Your task to perform on an android device: View the shopping cart on walmart.com. Search for amazon basics triple a on walmart.com, select the first entry, and add it to the cart. Image 0: 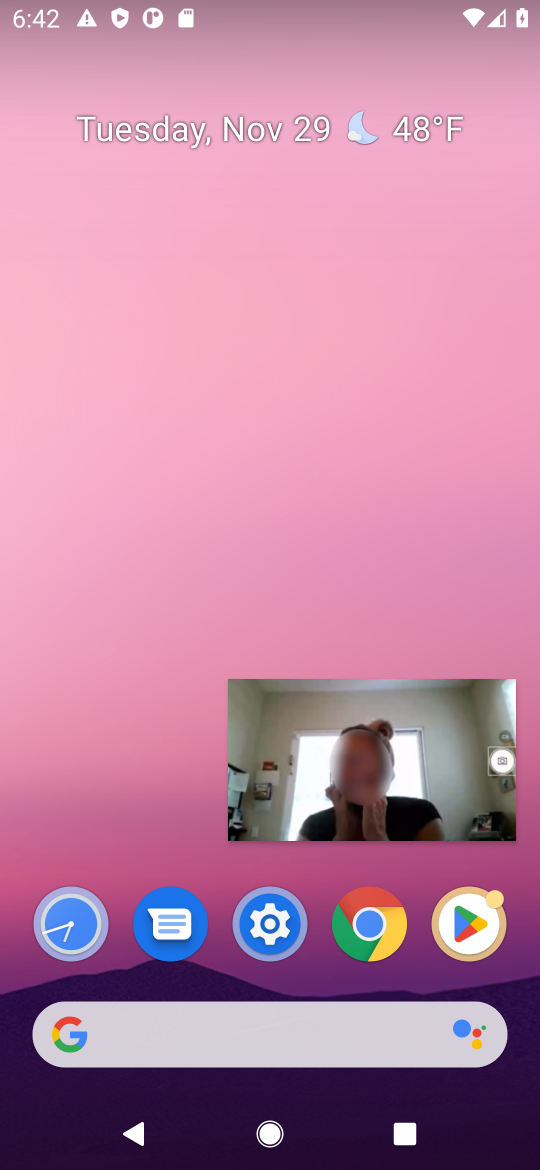
Step 0: click (315, 1015)
Your task to perform on an android device: View the shopping cart on walmart.com. Search for amazon basics triple a on walmart.com, select the first entry, and add it to the cart. Image 1: 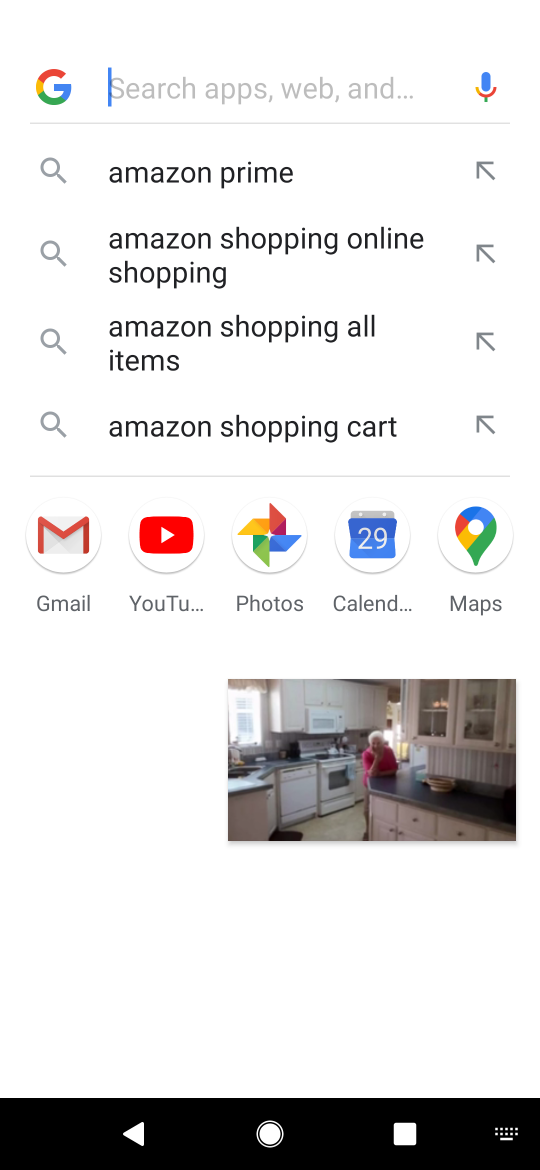
Step 1: type "wal,mart"
Your task to perform on an android device: View the shopping cart on walmart.com. Search for amazon basics triple a on walmart.com, select the first entry, and add it to the cart. Image 2: 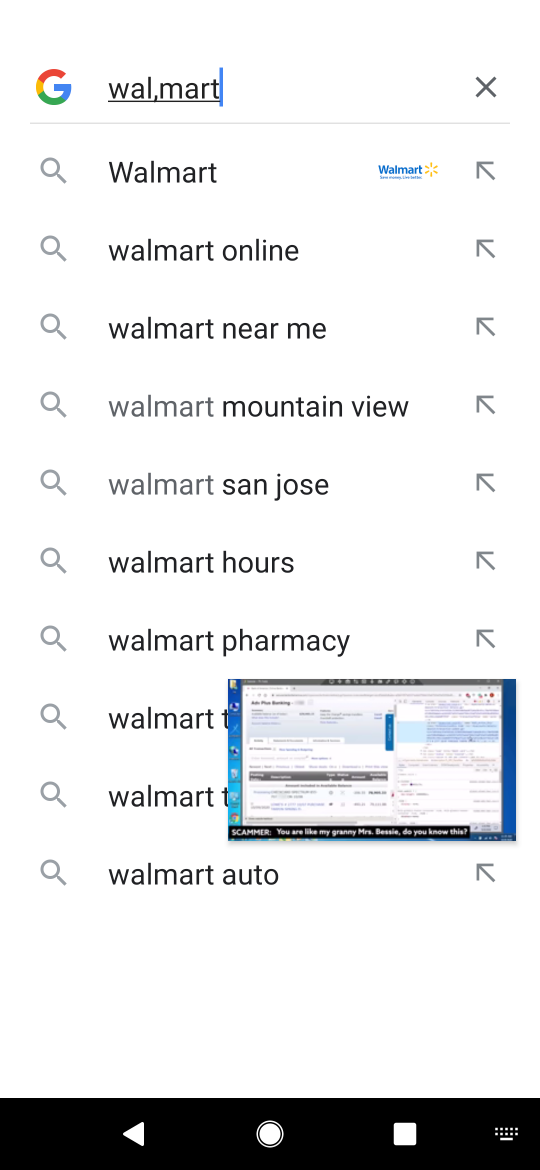
Step 2: click (182, 156)
Your task to perform on an android device: View the shopping cart on walmart.com. Search for amazon basics triple a on walmart.com, select the first entry, and add it to the cart. Image 3: 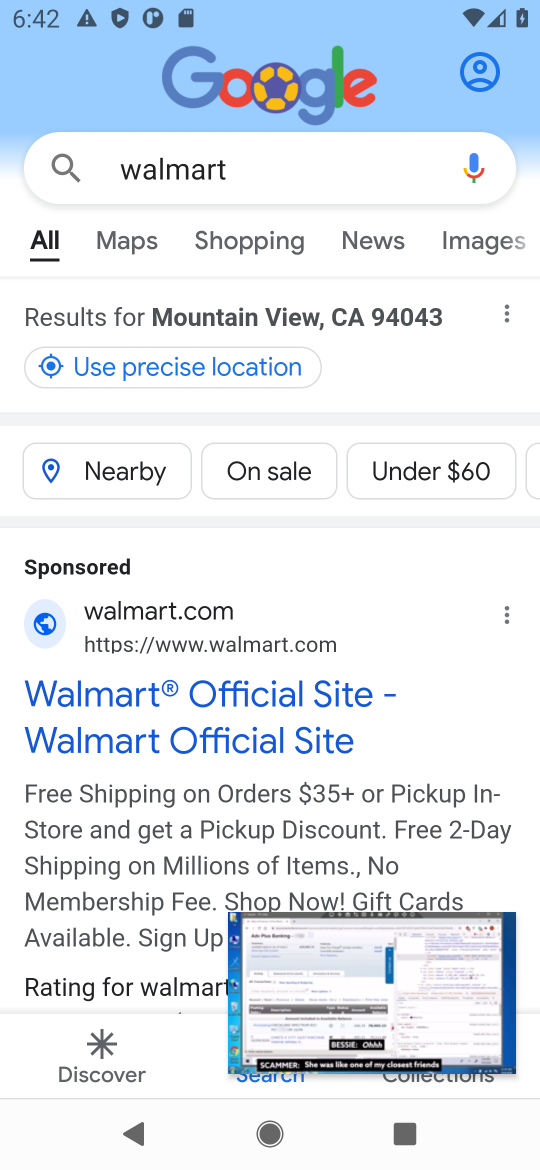
Step 3: click (180, 724)
Your task to perform on an android device: View the shopping cart on walmart.com. Search for amazon basics triple a on walmart.com, select the first entry, and add it to the cart. Image 4: 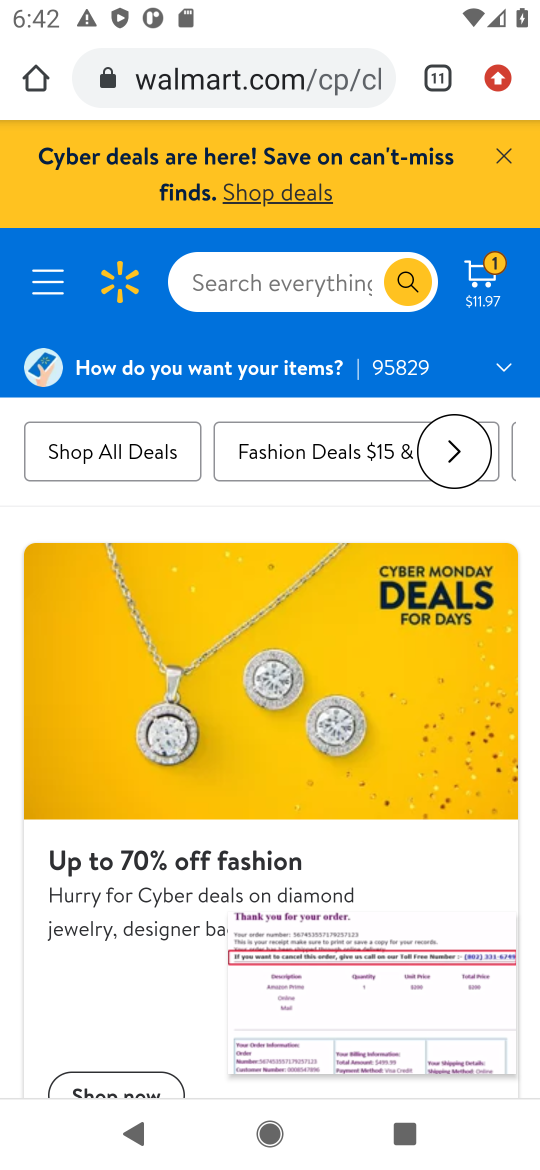
Step 4: click (275, 306)
Your task to perform on an android device: View the shopping cart on walmart.com. Search for amazon basics triple a on walmart.com, select the first entry, and add it to the cart. Image 5: 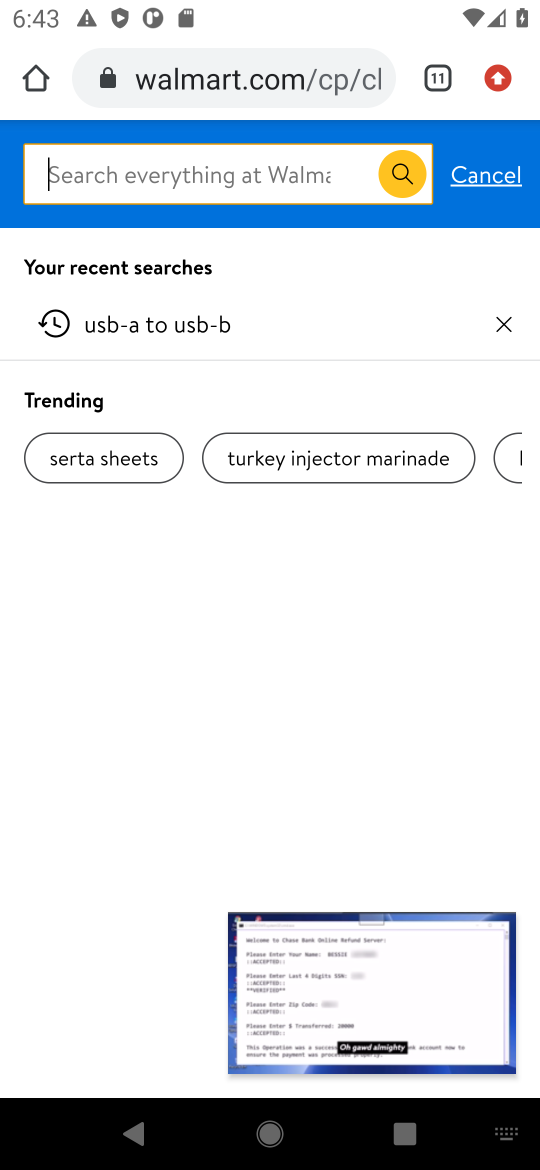
Step 5: type "amazon basic triple "
Your task to perform on an android device: View the shopping cart on walmart.com. Search for amazon basics triple a on walmart.com, select the first entry, and add it to the cart. Image 6: 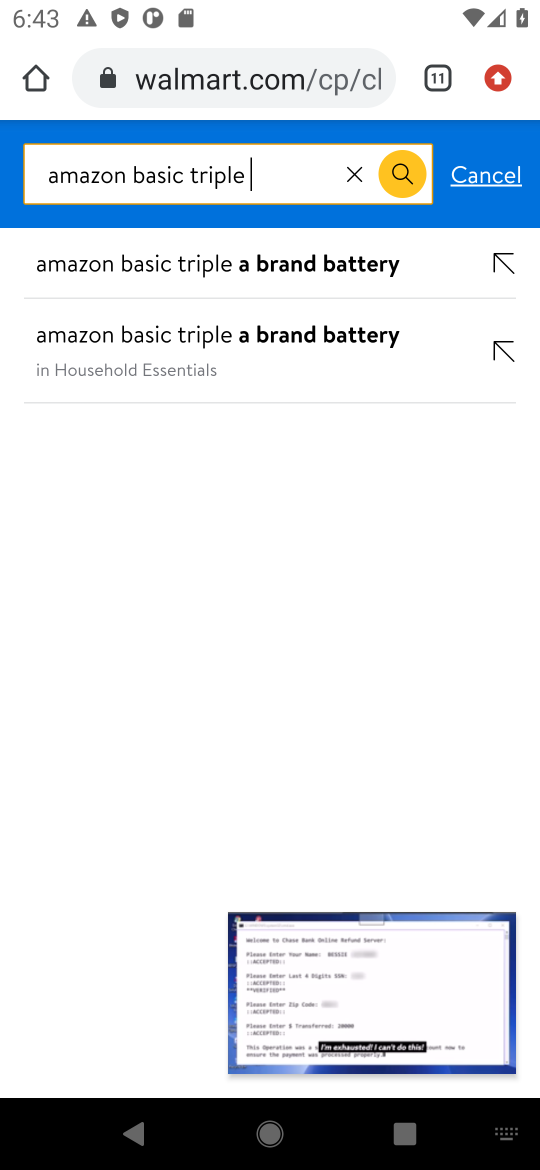
Step 6: click (291, 270)
Your task to perform on an android device: View the shopping cart on walmart.com. Search for amazon basics triple a on walmart.com, select the first entry, and add it to the cart. Image 7: 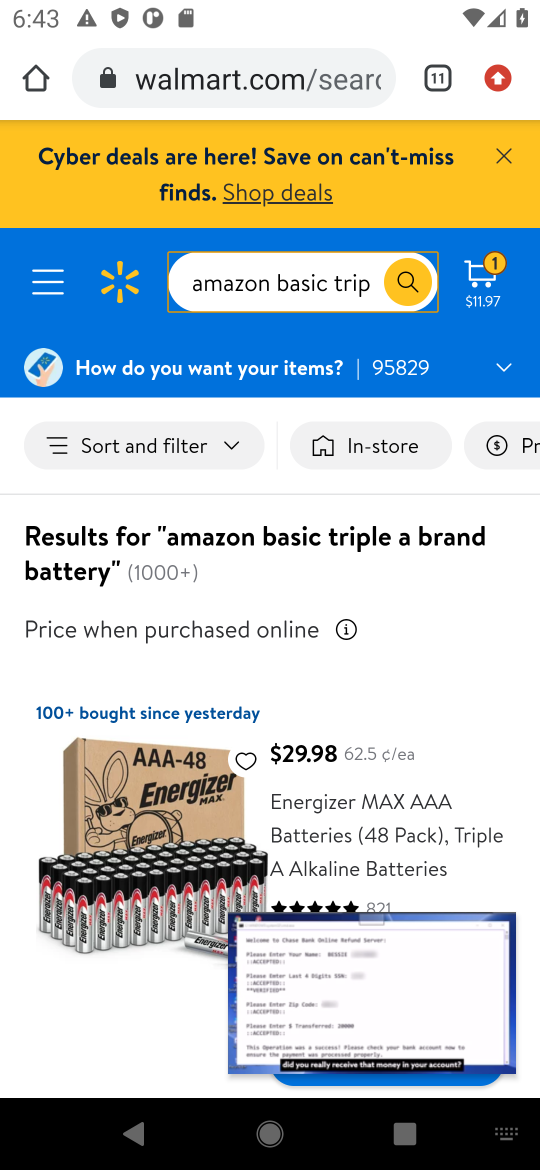
Step 7: drag from (154, 979) to (176, 179)
Your task to perform on an android device: View the shopping cart on walmart.com. Search for amazon basics triple a on walmart.com, select the first entry, and add it to the cart. Image 8: 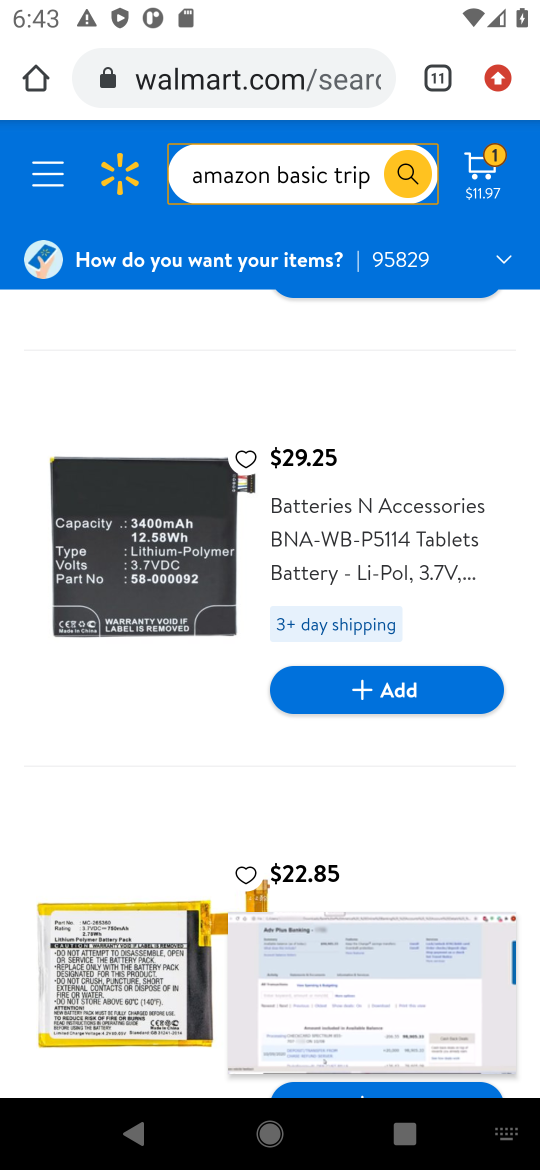
Step 8: click (354, 301)
Your task to perform on an android device: View the shopping cart on walmart.com. Search for amazon basics triple a on walmart.com, select the first entry, and add it to the cart. Image 9: 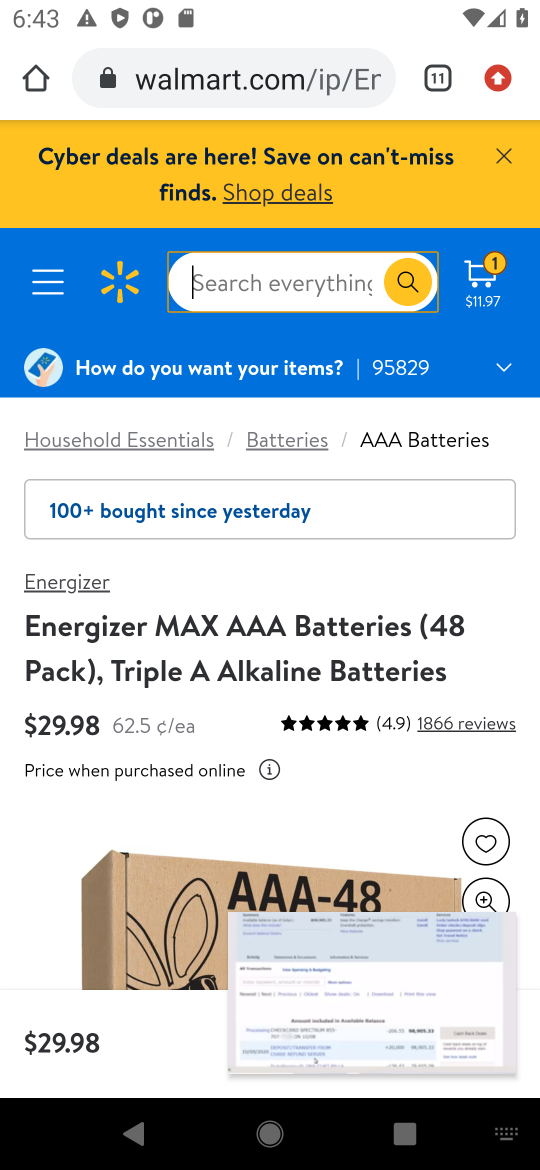
Step 9: task complete